Your task to perform on an android device: set the stopwatch Image 0: 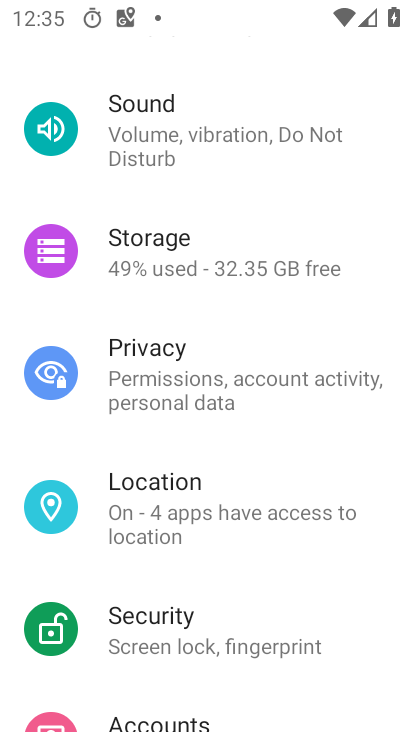
Step 0: press home button
Your task to perform on an android device: set the stopwatch Image 1: 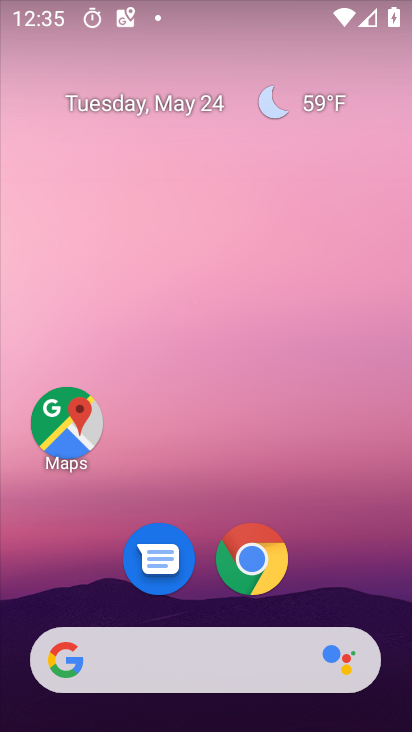
Step 1: drag from (392, 702) to (384, 339)
Your task to perform on an android device: set the stopwatch Image 2: 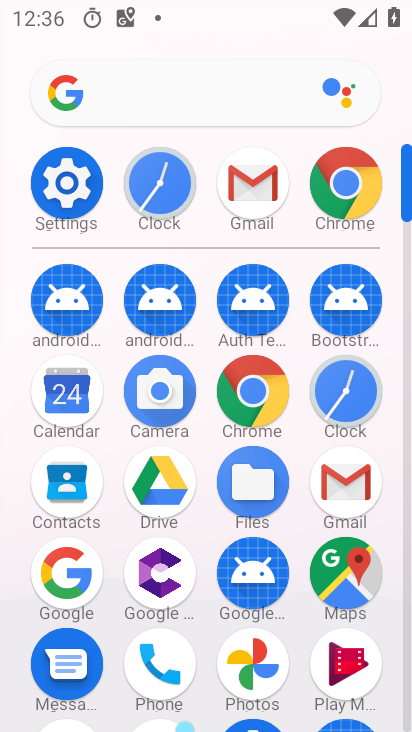
Step 2: click (325, 392)
Your task to perform on an android device: set the stopwatch Image 3: 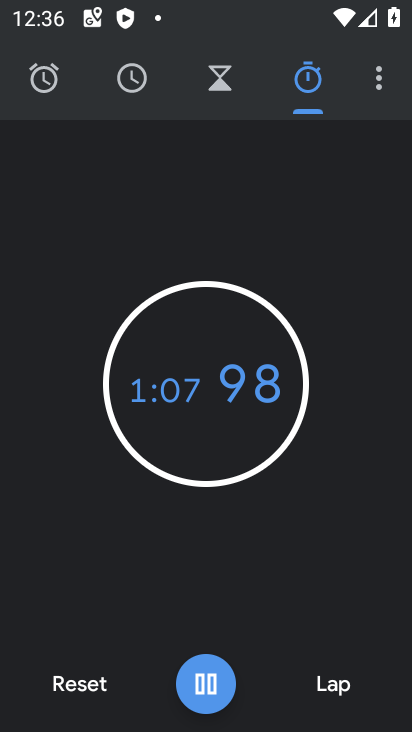
Step 3: click (94, 680)
Your task to perform on an android device: set the stopwatch Image 4: 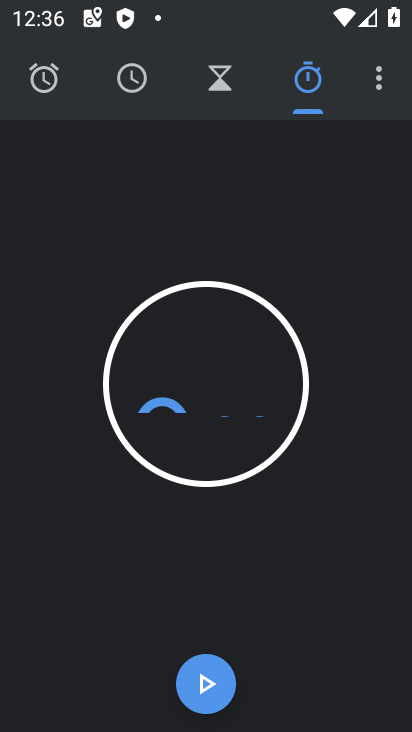
Step 4: click (186, 681)
Your task to perform on an android device: set the stopwatch Image 5: 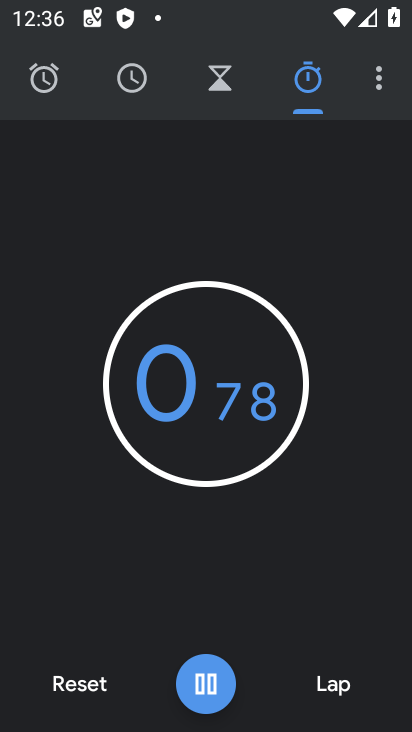
Step 5: task complete